Your task to perform on an android device: search for starred emails in the gmail app Image 0: 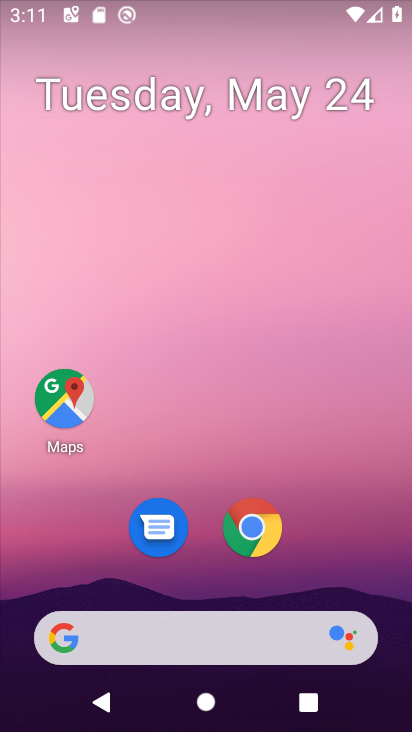
Step 0: drag from (341, 590) to (350, 25)
Your task to perform on an android device: search for starred emails in the gmail app Image 1: 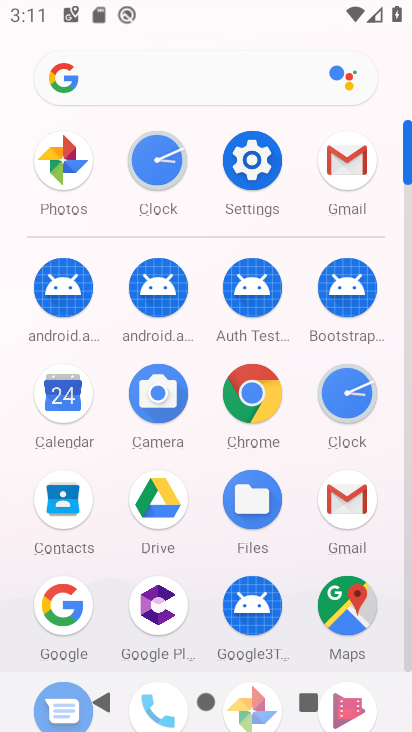
Step 1: click (350, 171)
Your task to perform on an android device: search for starred emails in the gmail app Image 2: 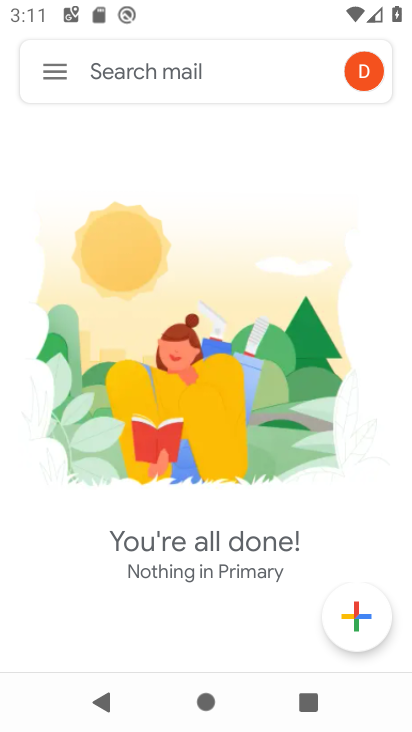
Step 2: click (57, 67)
Your task to perform on an android device: search for starred emails in the gmail app Image 3: 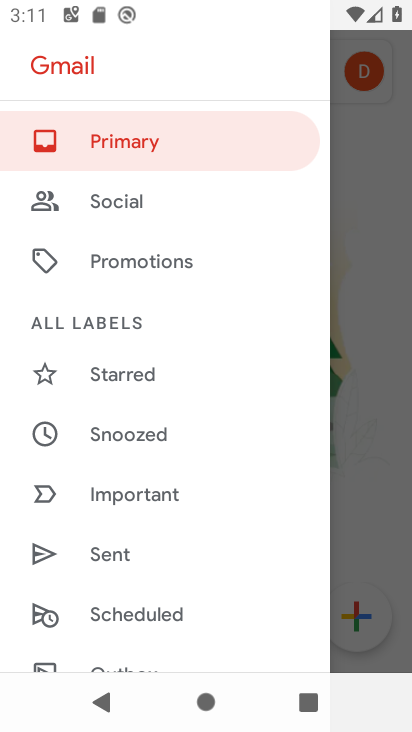
Step 3: click (116, 374)
Your task to perform on an android device: search for starred emails in the gmail app Image 4: 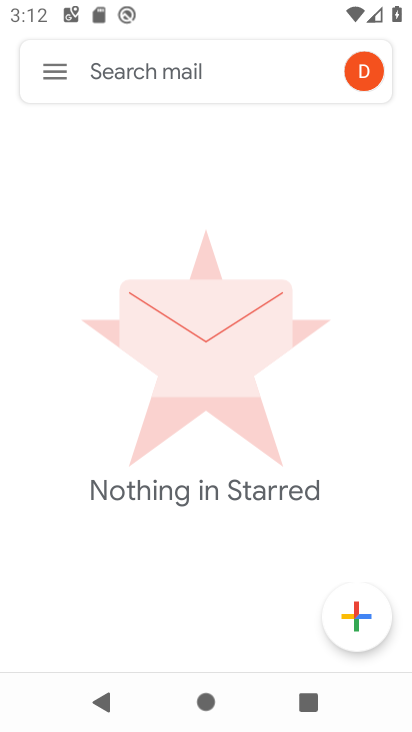
Step 4: task complete